Your task to perform on an android device: delete the emails in spam in the gmail app Image 0: 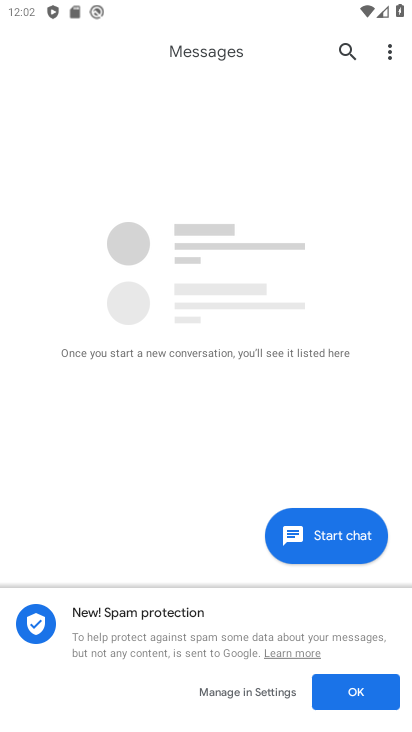
Step 0: press home button
Your task to perform on an android device: delete the emails in spam in the gmail app Image 1: 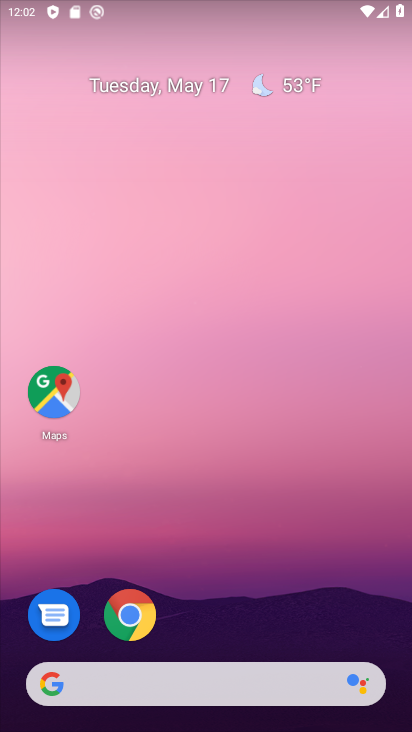
Step 1: drag from (278, 521) to (186, 29)
Your task to perform on an android device: delete the emails in spam in the gmail app Image 2: 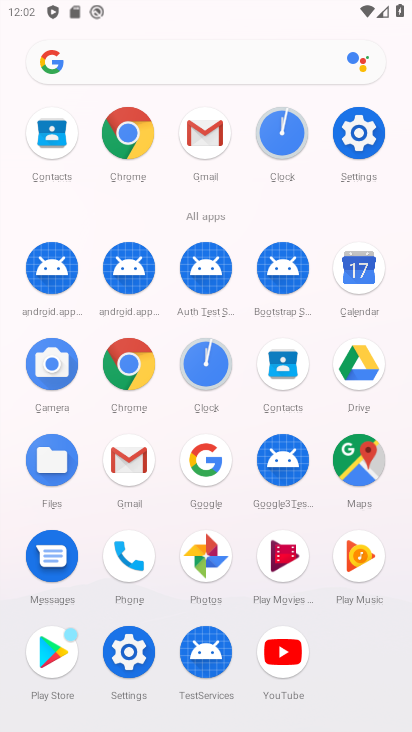
Step 2: click (346, 158)
Your task to perform on an android device: delete the emails in spam in the gmail app Image 3: 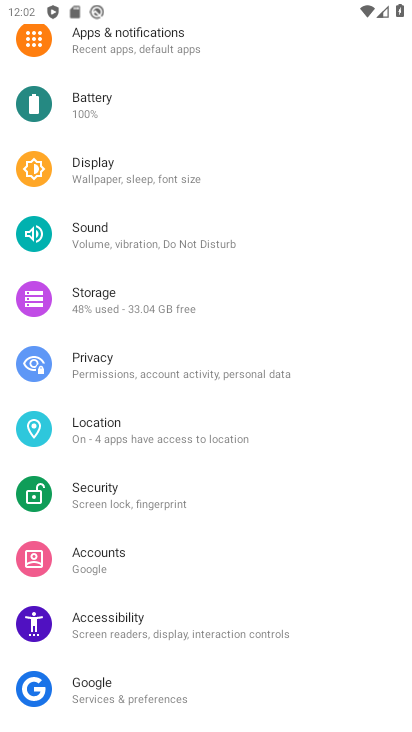
Step 3: drag from (190, 621) to (159, 386)
Your task to perform on an android device: delete the emails in spam in the gmail app Image 4: 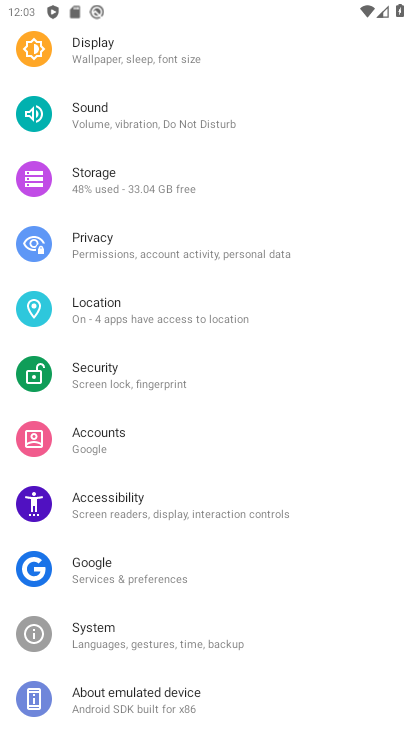
Step 4: press home button
Your task to perform on an android device: delete the emails in spam in the gmail app Image 5: 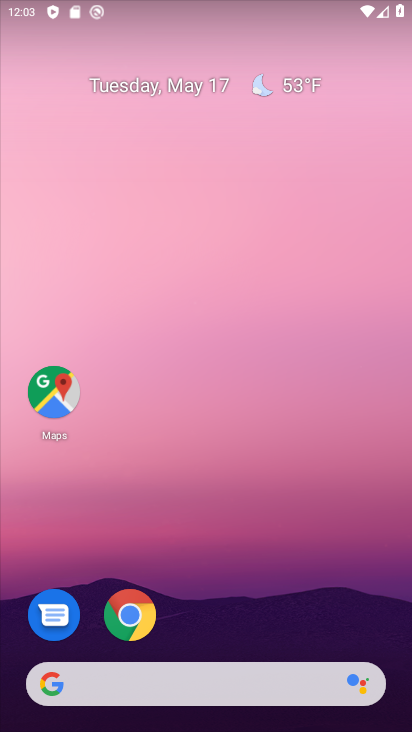
Step 5: drag from (287, 598) to (268, 155)
Your task to perform on an android device: delete the emails in spam in the gmail app Image 6: 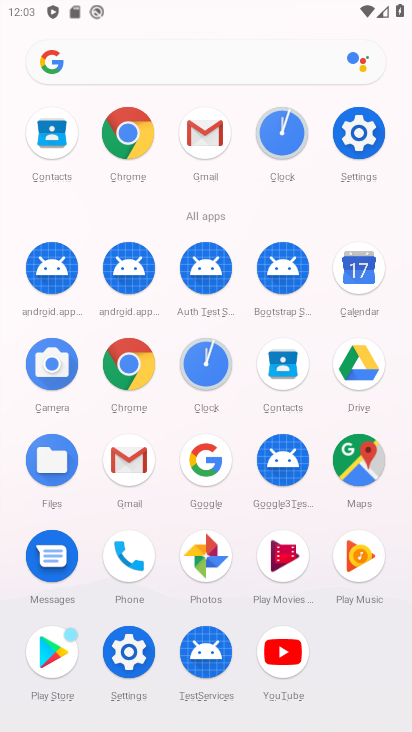
Step 6: click (191, 152)
Your task to perform on an android device: delete the emails in spam in the gmail app Image 7: 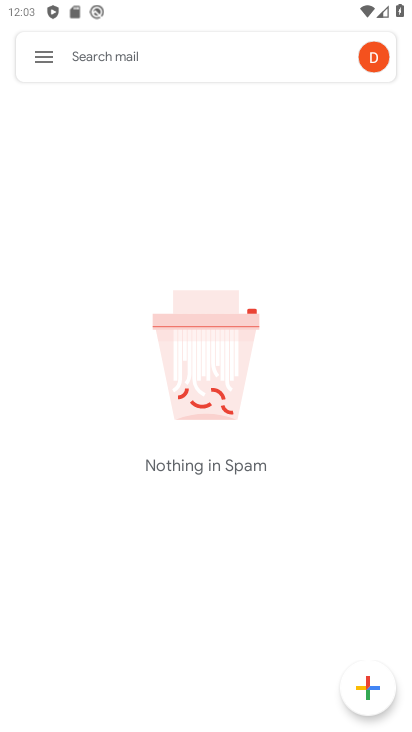
Step 7: click (45, 64)
Your task to perform on an android device: delete the emails in spam in the gmail app Image 8: 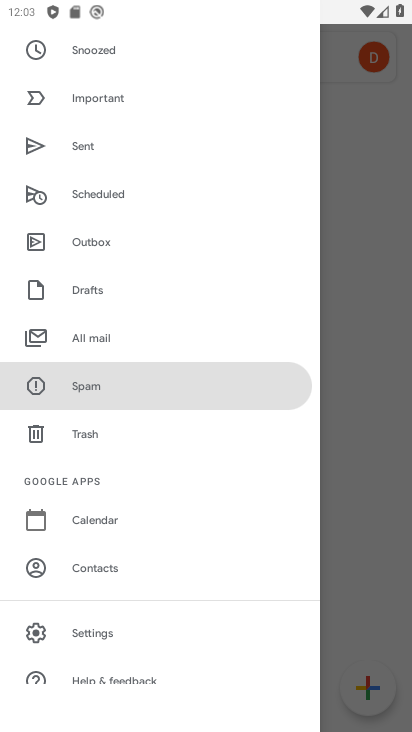
Step 8: click (126, 379)
Your task to perform on an android device: delete the emails in spam in the gmail app Image 9: 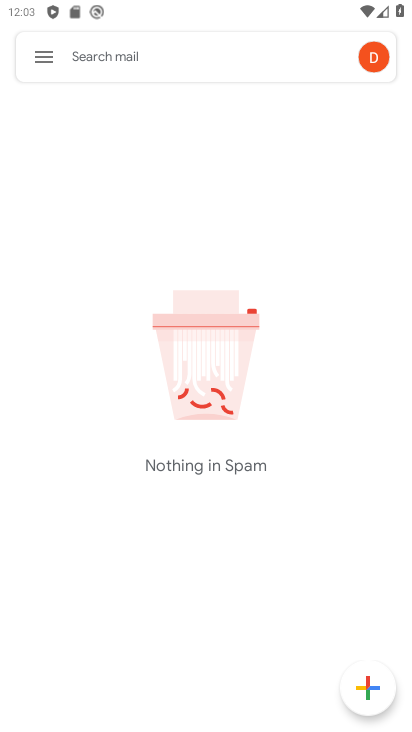
Step 9: task complete